Your task to perform on an android device: Go to battery settings Image 0: 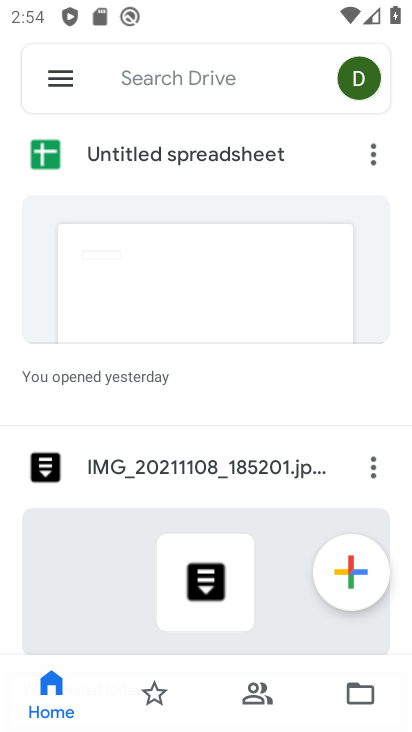
Step 0: drag from (215, 18) to (310, 716)
Your task to perform on an android device: Go to battery settings Image 1: 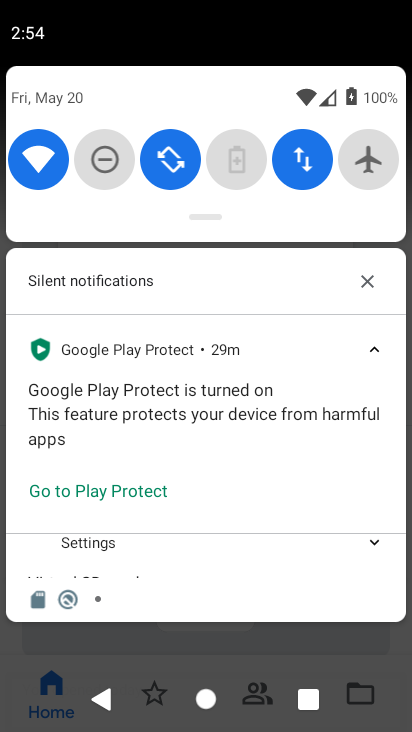
Step 1: drag from (197, 95) to (276, 511)
Your task to perform on an android device: Go to battery settings Image 2: 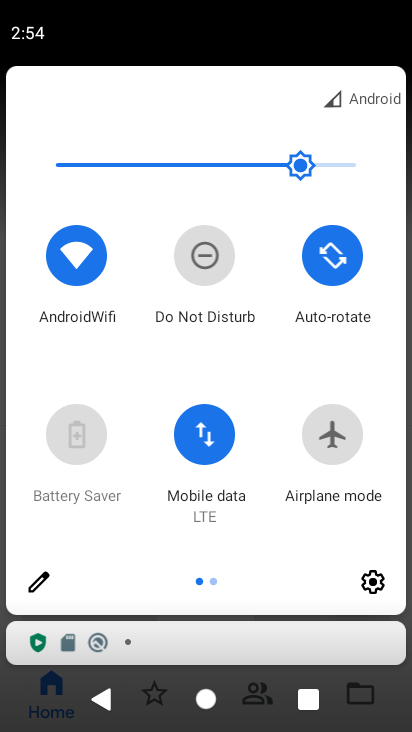
Step 2: click (380, 576)
Your task to perform on an android device: Go to battery settings Image 3: 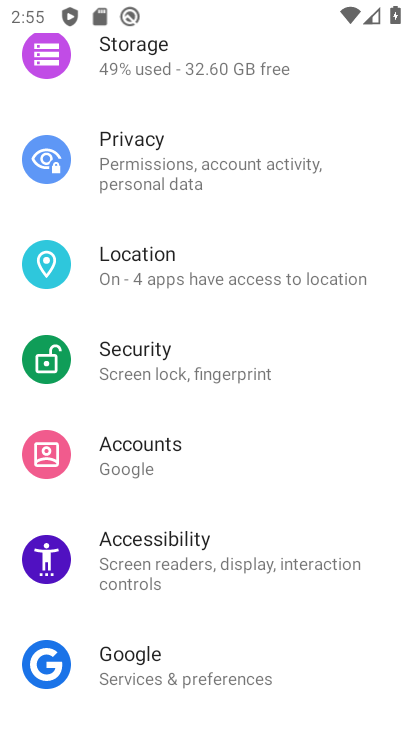
Step 3: drag from (238, 223) to (179, 691)
Your task to perform on an android device: Go to battery settings Image 4: 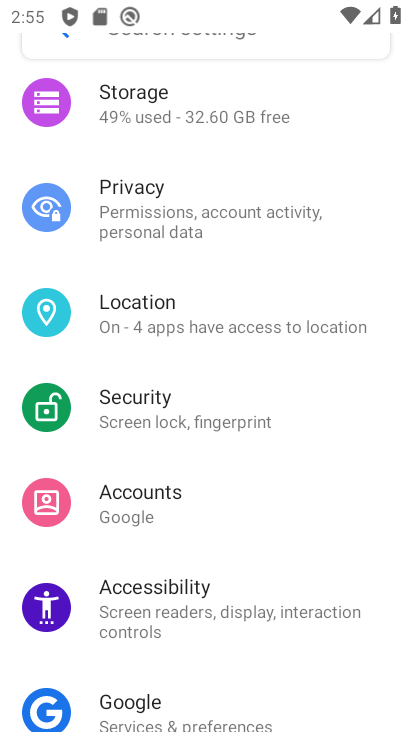
Step 4: drag from (225, 476) to (248, 622)
Your task to perform on an android device: Go to battery settings Image 5: 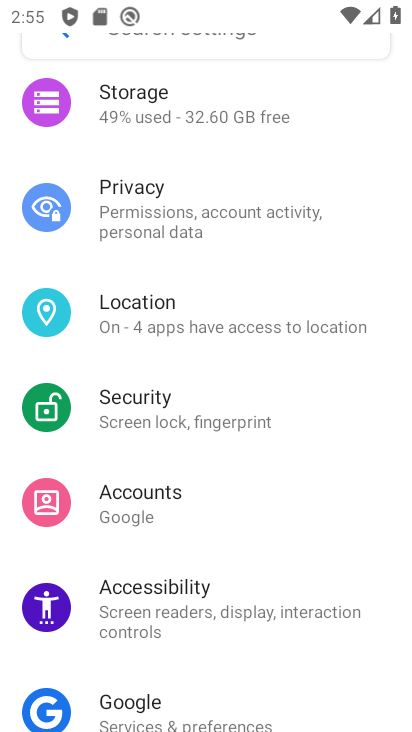
Step 5: drag from (160, 278) to (255, 668)
Your task to perform on an android device: Go to battery settings Image 6: 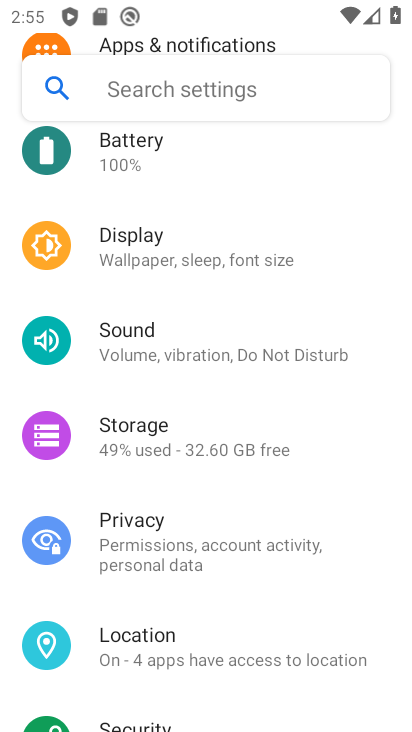
Step 6: drag from (141, 138) to (178, 421)
Your task to perform on an android device: Go to battery settings Image 7: 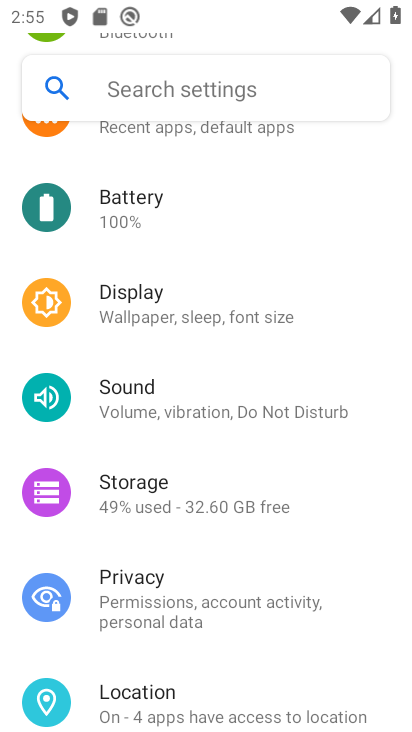
Step 7: click (109, 131)
Your task to perform on an android device: Go to battery settings Image 8: 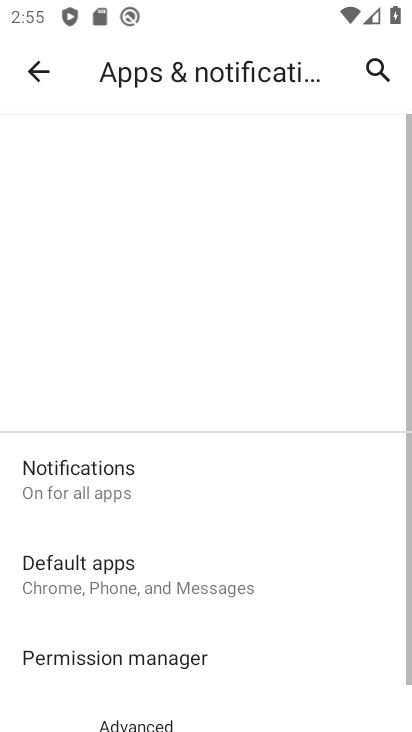
Step 8: click (137, 211)
Your task to perform on an android device: Go to battery settings Image 9: 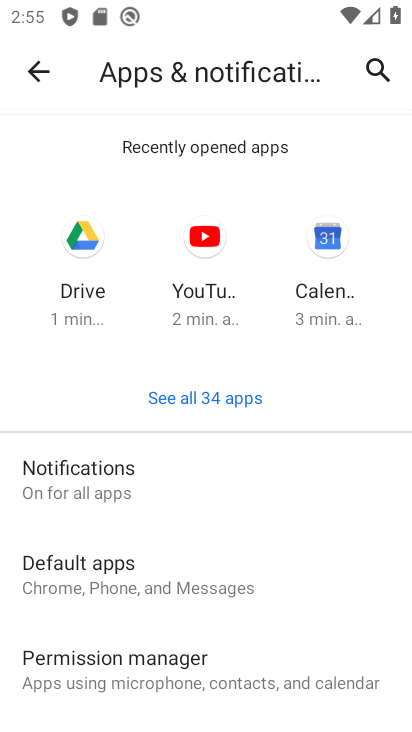
Step 9: task complete